Your task to perform on an android device: Play the last video I watched on Youtube Image 0: 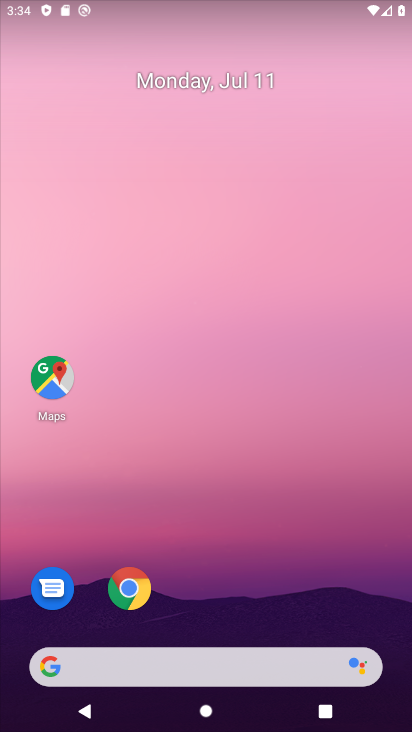
Step 0: drag from (345, 589) to (375, 123)
Your task to perform on an android device: Play the last video I watched on Youtube Image 1: 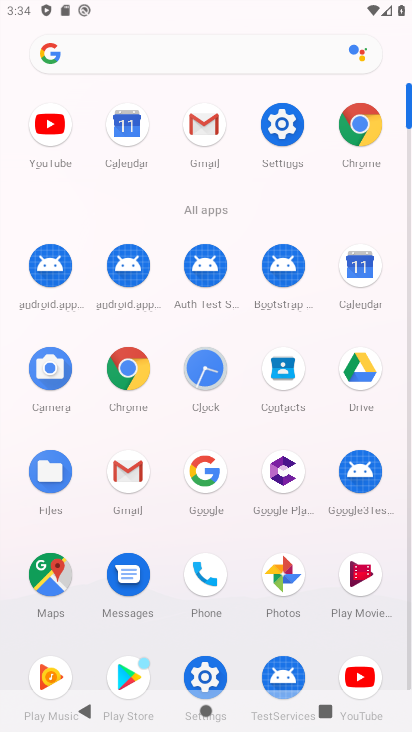
Step 1: drag from (382, 339) to (377, 205)
Your task to perform on an android device: Play the last video I watched on Youtube Image 2: 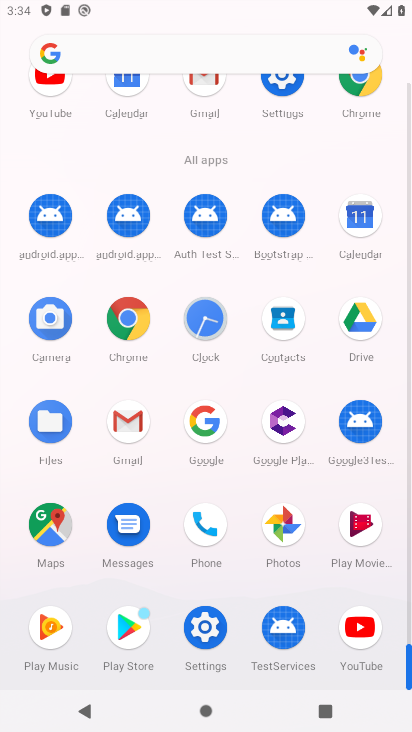
Step 2: click (366, 626)
Your task to perform on an android device: Play the last video I watched on Youtube Image 3: 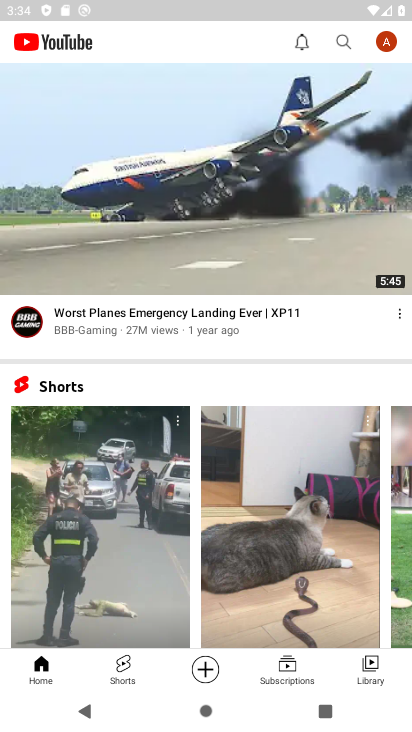
Step 3: click (368, 678)
Your task to perform on an android device: Play the last video I watched on Youtube Image 4: 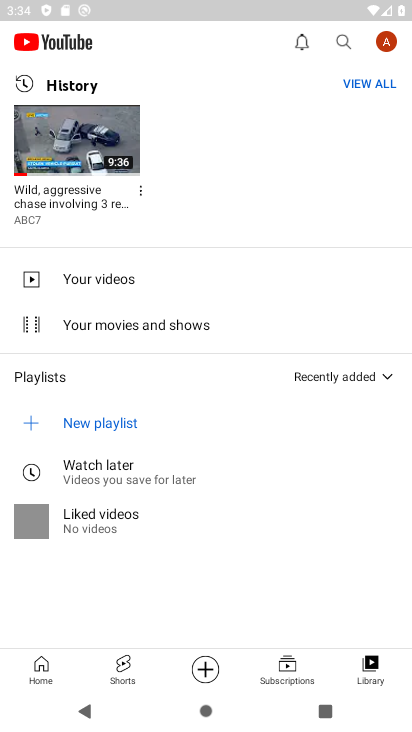
Step 4: click (58, 140)
Your task to perform on an android device: Play the last video I watched on Youtube Image 5: 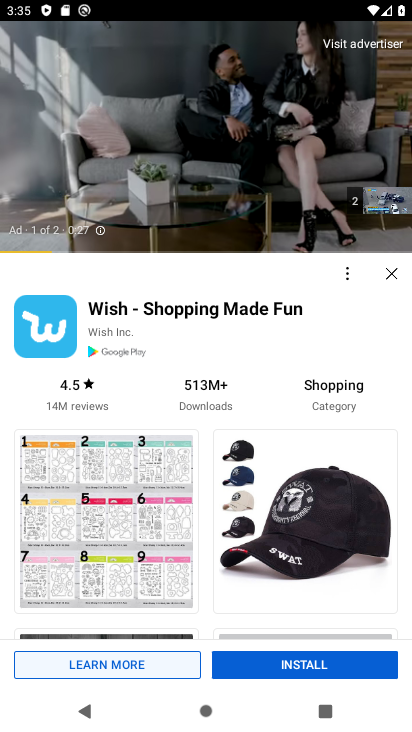
Step 5: task complete